Your task to perform on an android device: star an email in the gmail app Image 0: 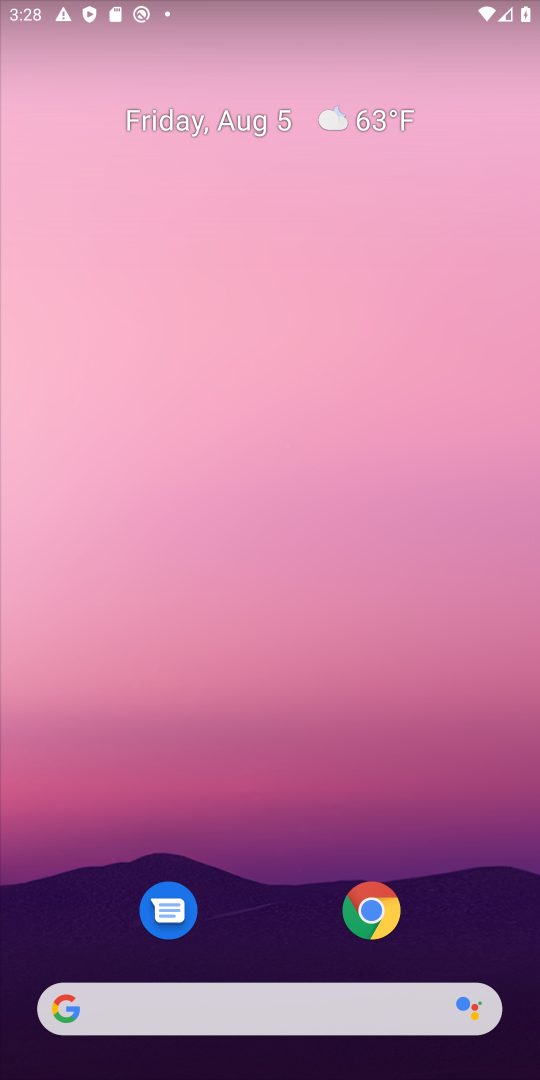
Step 0: drag from (471, 897) to (342, 123)
Your task to perform on an android device: star an email in the gmail app Image 1: 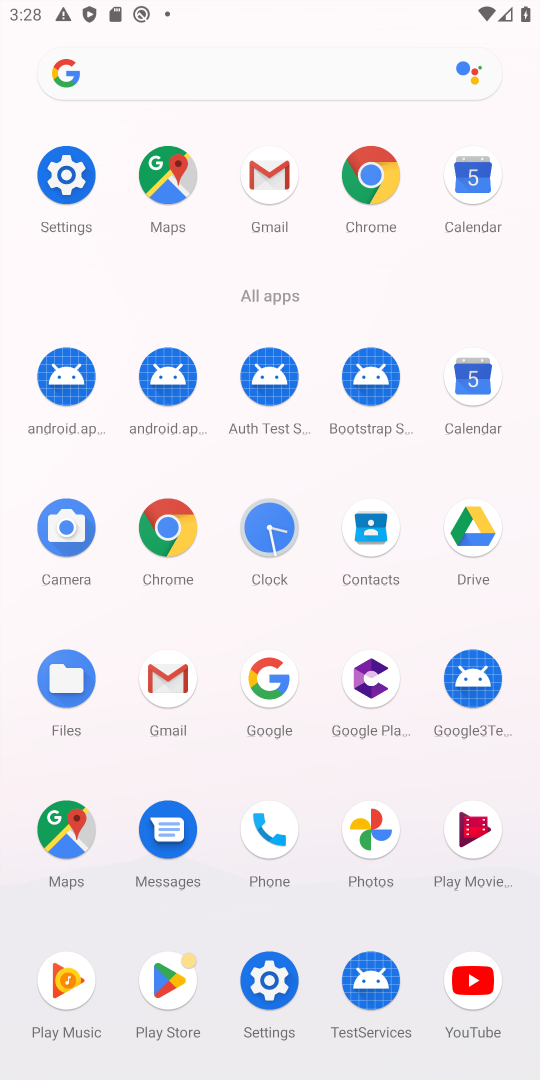
Step 1: click (297, 204)
Your task to perform on an android device: star an email in the gmail app Image 2: 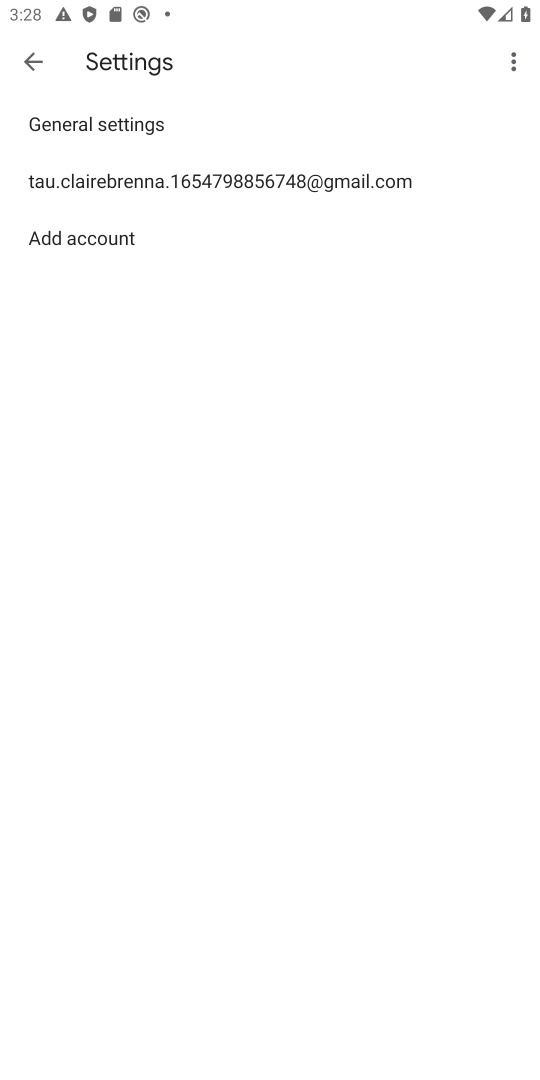
Step 2: click (38, 50)
Your task to perform on an android device: star an email in the gmail app Image 3: 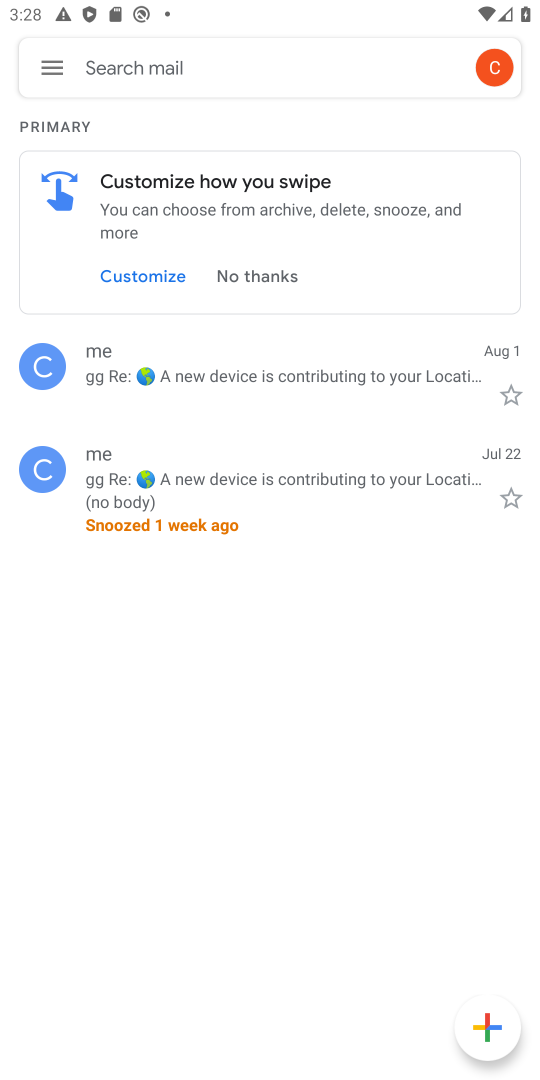
Step 3: click (507, 386)
Your task to perform on an android device: star an email in the gmail app Image 4: 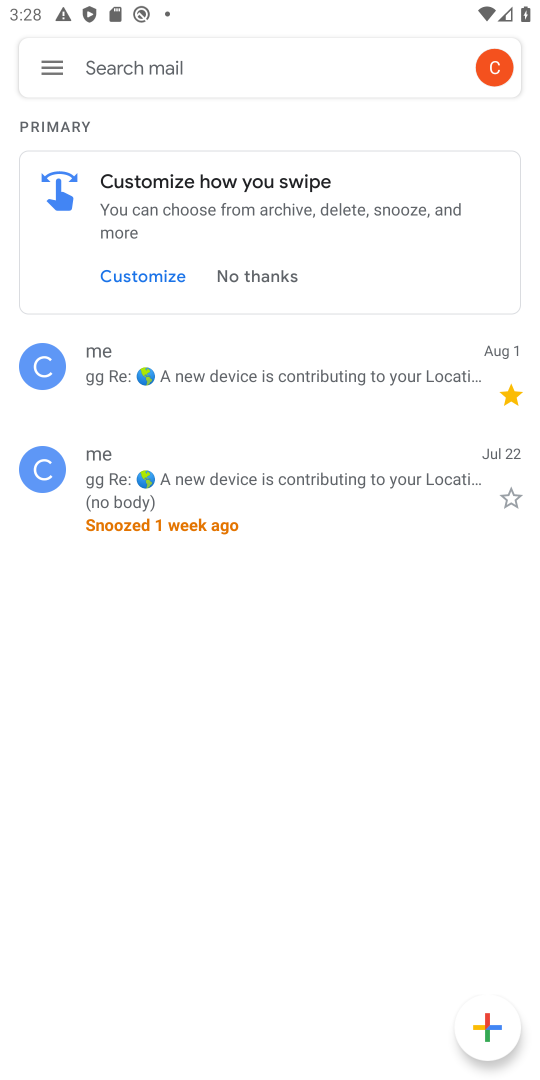
Step 4: task complete